Your task to perform on an android device: Open Google Image 0: 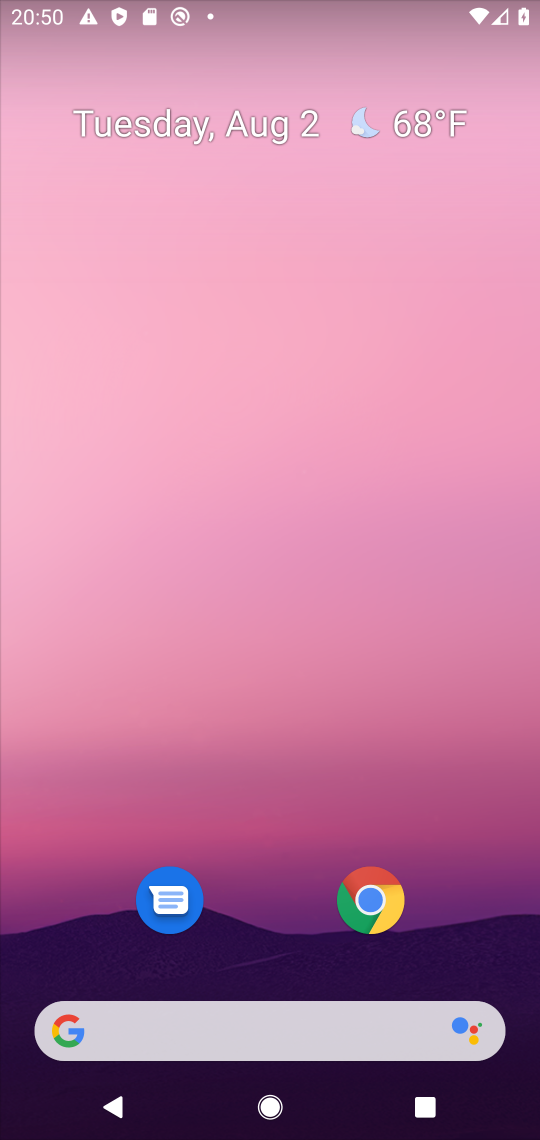
Step 0: drag from (276, 858) to (358, 2)
Your task to perform on an android device: Open Google Image 1: 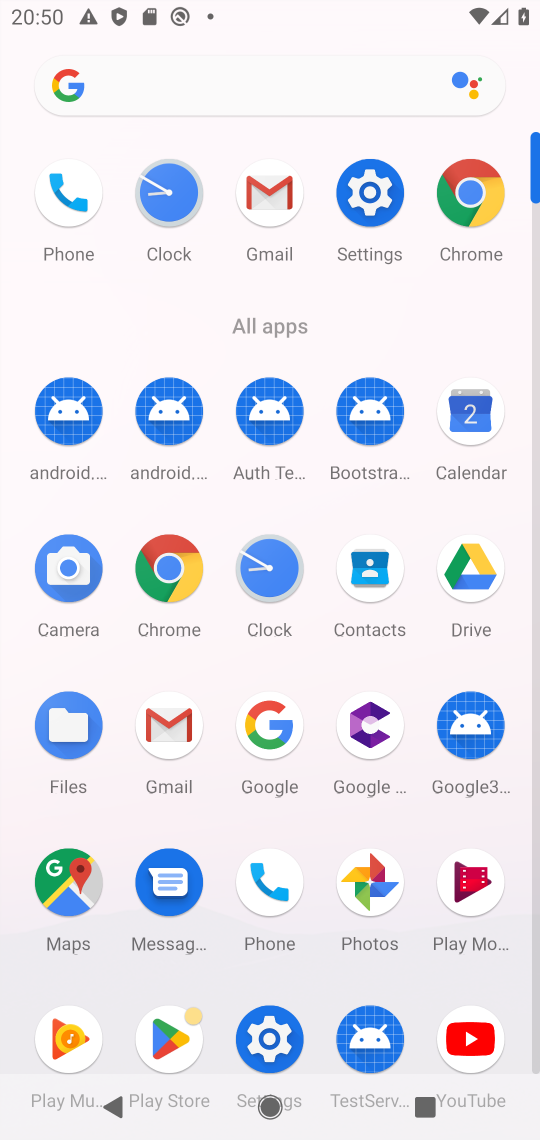
Step 1: click (271, 716)
Your task to perform on an android device: Open Google Image 2: 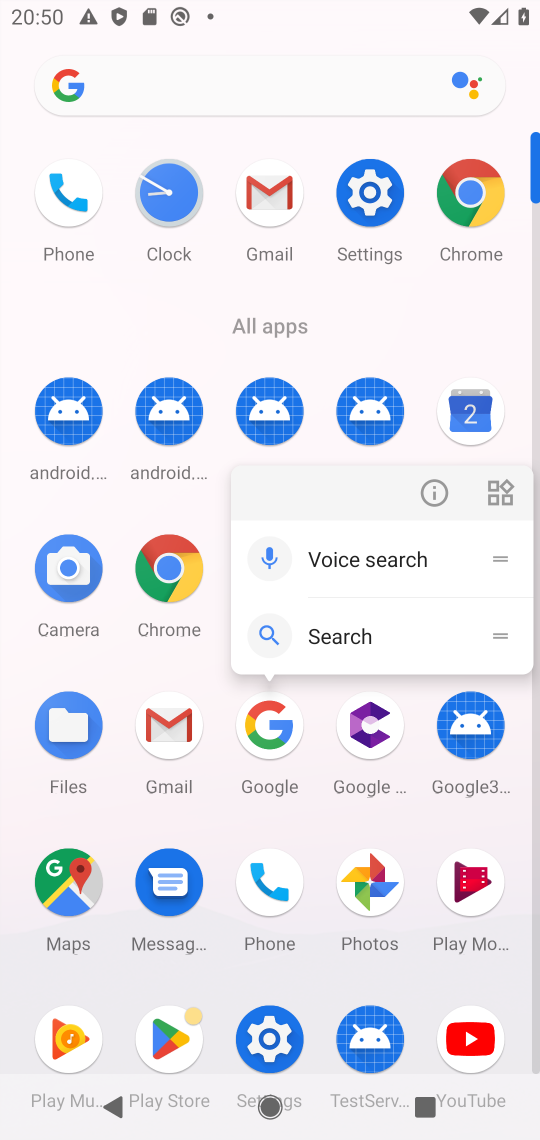
Step 2: click (276, 737)
Your task to perform on an android device: Open Google Image 3: 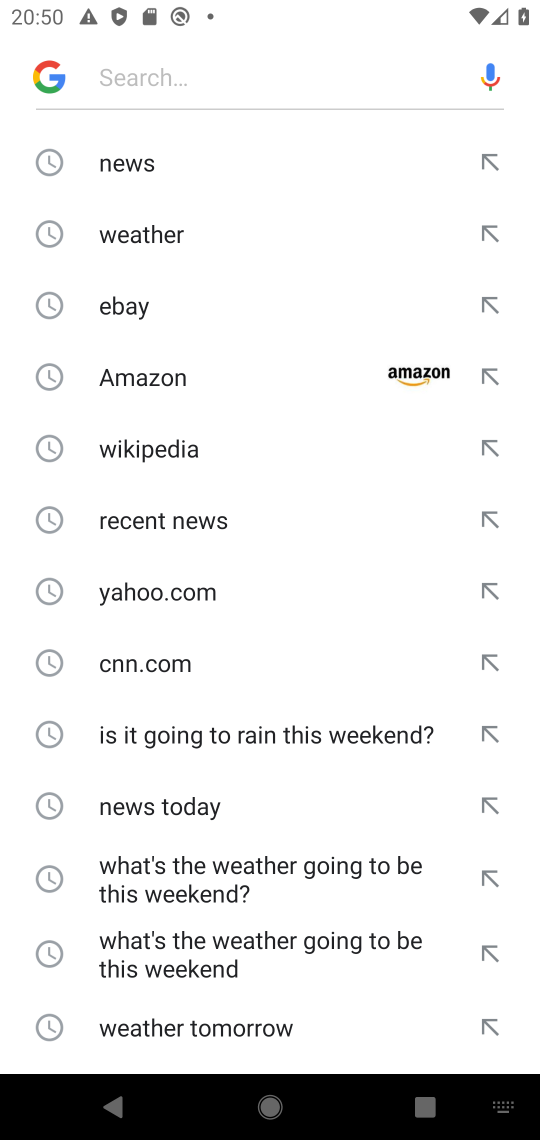
Step 3: click (57, 86)
Your task to perform on an android device: Open Google Image 4: 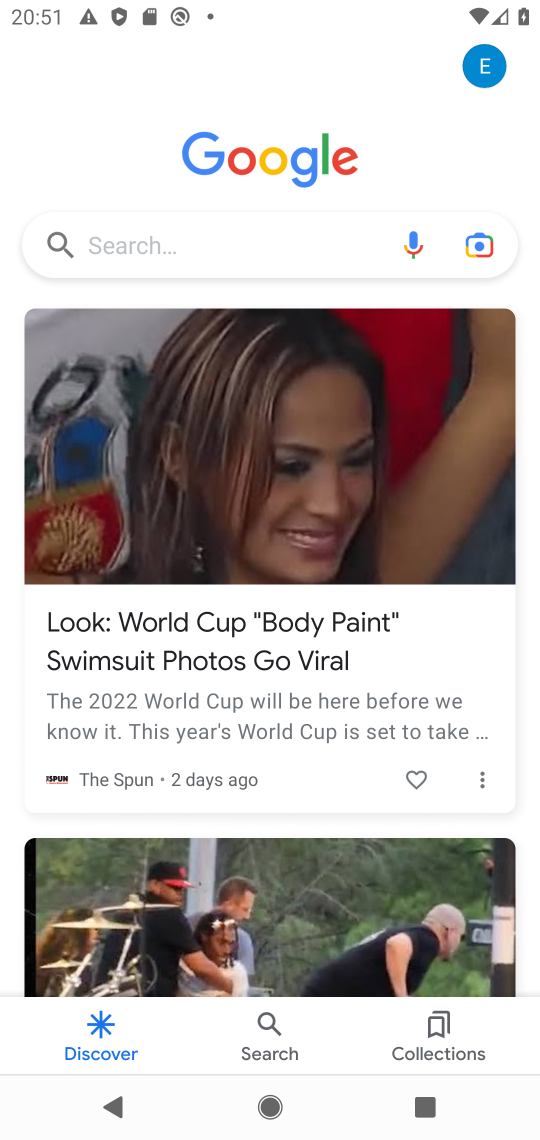
Step 4: task complete